Your task to perform on an android device: Open Chrome and go to settings Image 0: 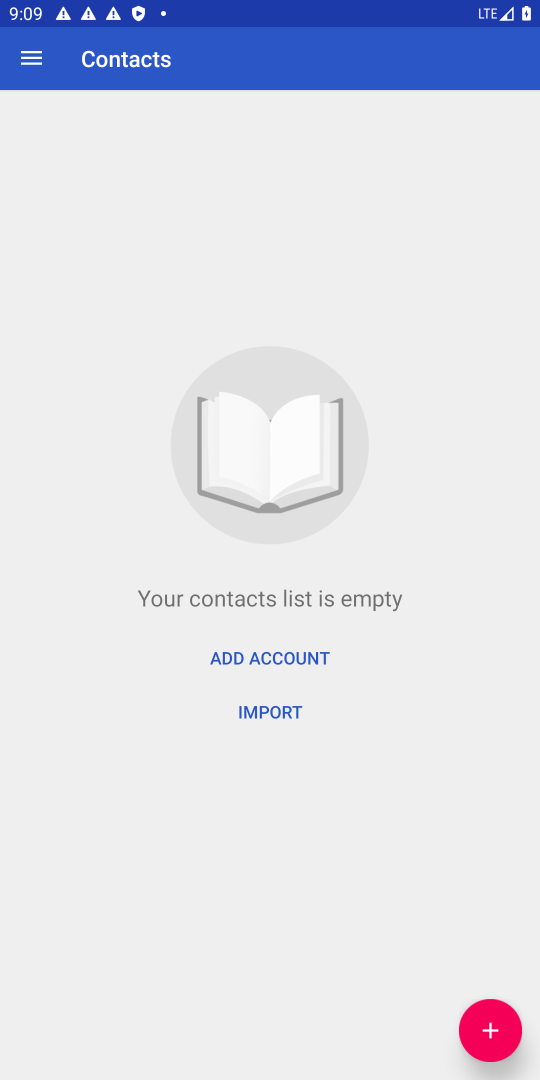
Step 0: press home button
Your task to perform on an android device: Open Chrome and go to settings Image 1: 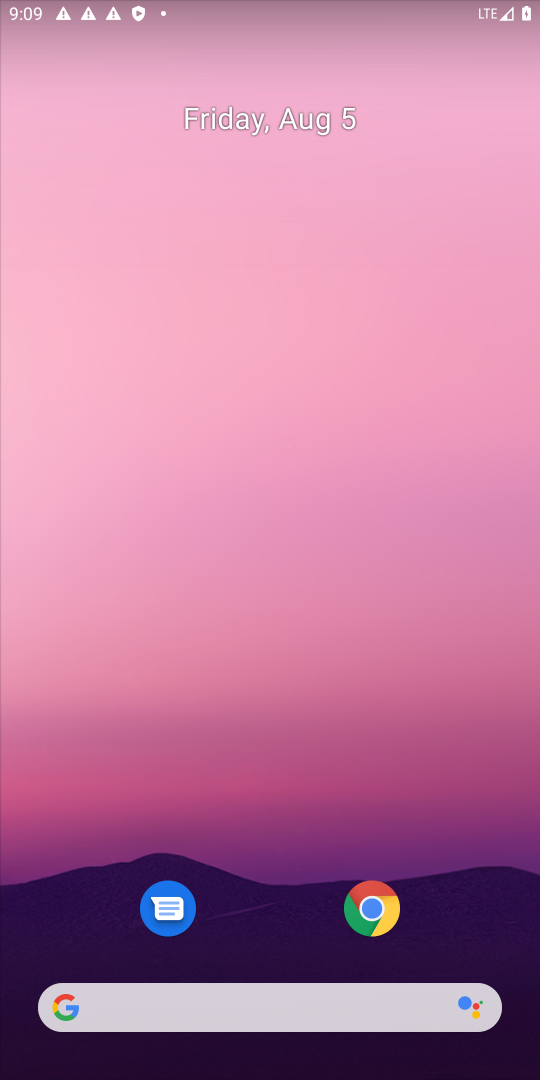
Step 1: drag from (288, 932) to (276, 881)
Your task to perform on an android device: Open Chrome and go to settings Image 2: 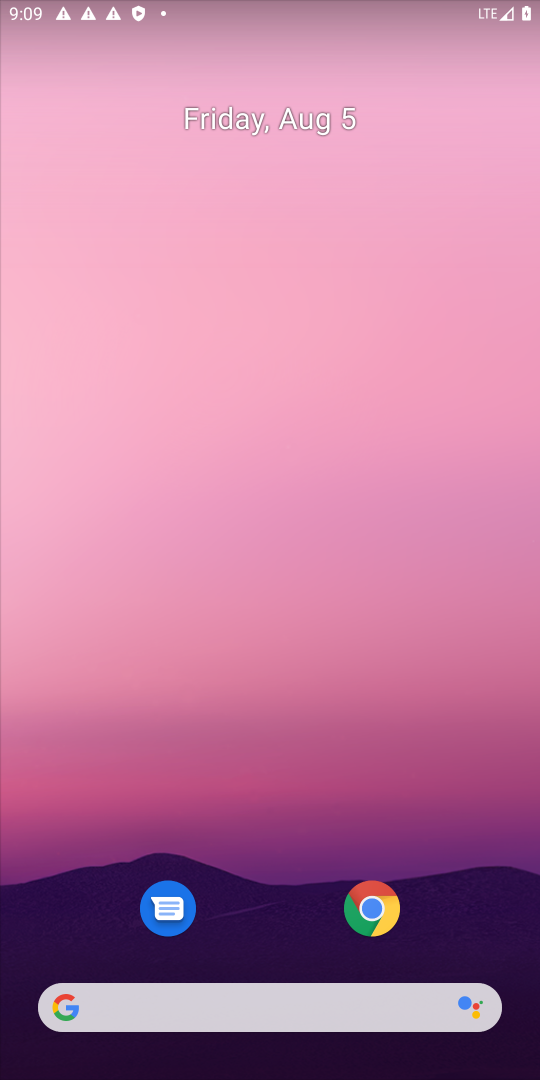
Step 2: click (369, 911)
Your task to perform on an android device: Open Chrome and go to settings Image 3: 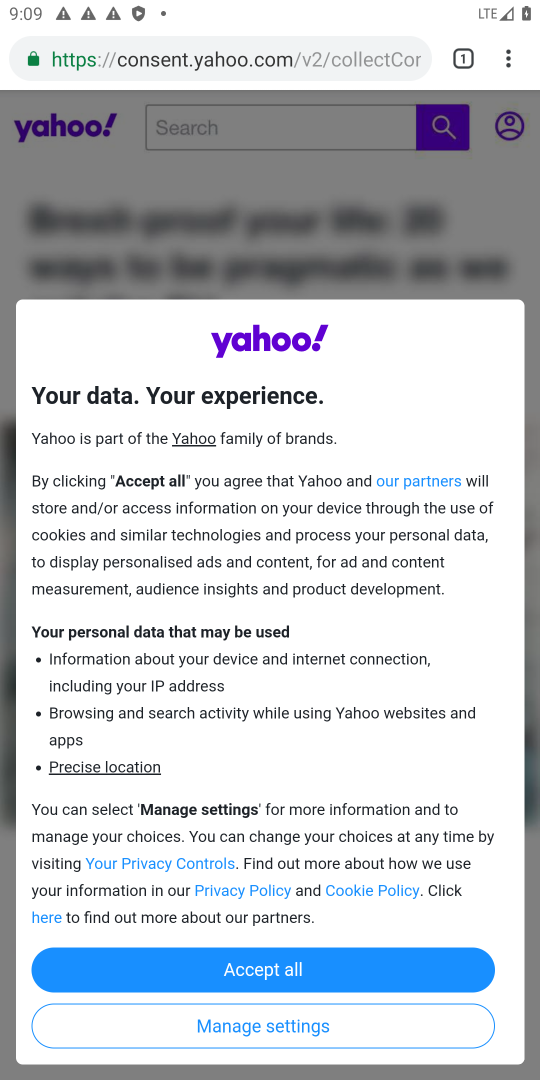
Step 3: click (506, 71)
Your task to perform on an android device: Open Chrome and go to settings Image 4: 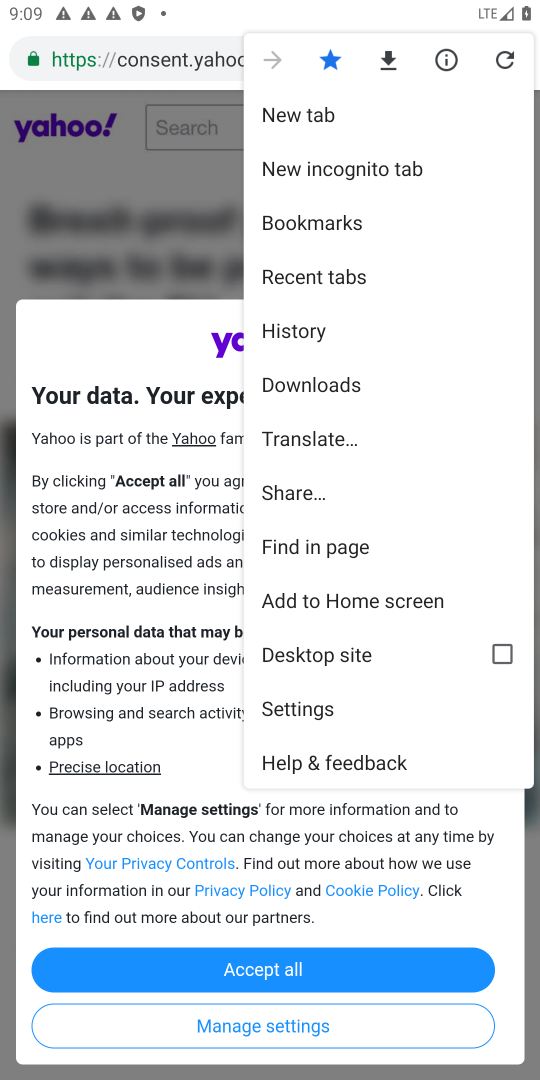
Step 4: click (330, 711)
Your task to perform on an android device: Open Chrome and go to settings Image 5: 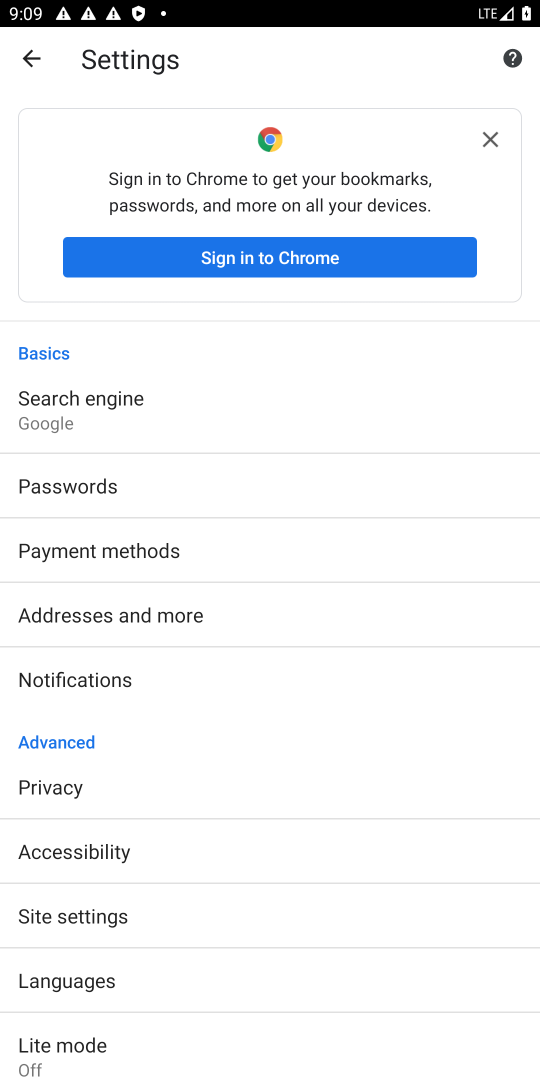
Step 5: task complete